Your task to perform on an android device: How much does a 3 bedroom apartment rent for in Washington DC? Image 0: 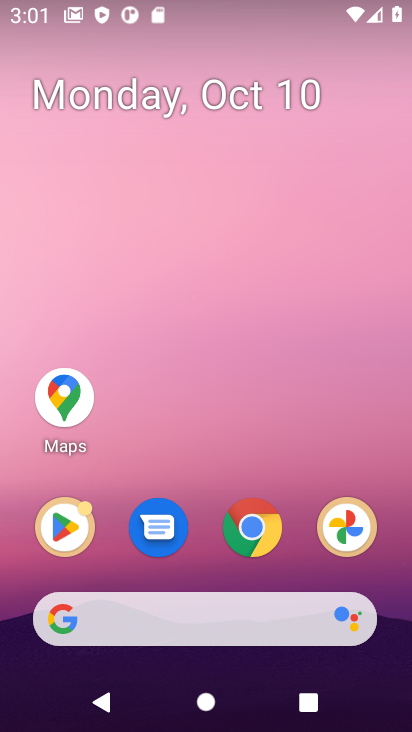
Step 0: press home button
Your task to perform on an android device: How much does a 3 bedroom apartment rent for in Washington DC? Image 1: 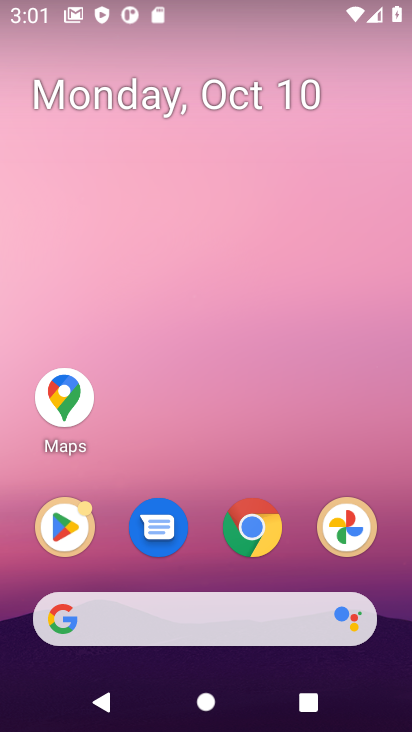
Step 1: click (267, 624)
Your task to perform on an android device: How much does a 3 bedroom apartment rent for in Washington DC? Image 2: 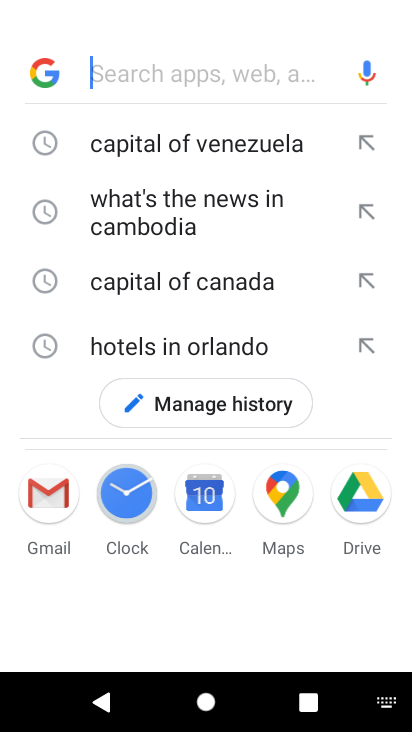
Step 2: type "3 bedroom apartment rent for in Washington DC?"
Your task to perform on an android device: How much does a 3 bedroom apartment rent for in Washington DC? Image 3: 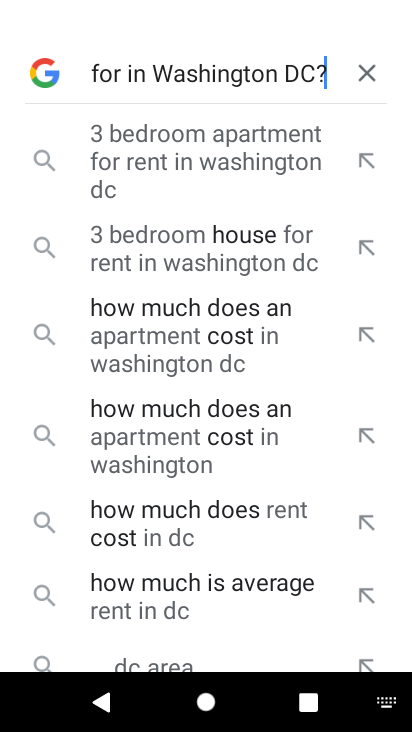
Step 3: press enter
Your task to perform on an android device: How much does a 3 bedroom apartment rent for in Washington DC? Image 4: 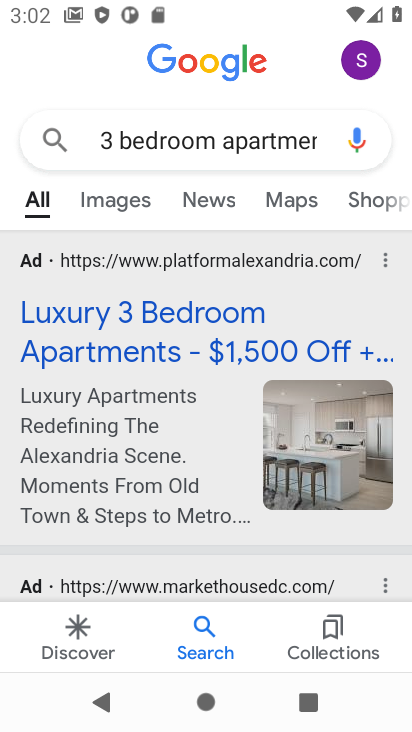
Step 4: drag from (164, 452) to (191, 308)
Your task to perform on an android device: How much does a 3 bedroom apartment rent for in Washington DC? Image 5: 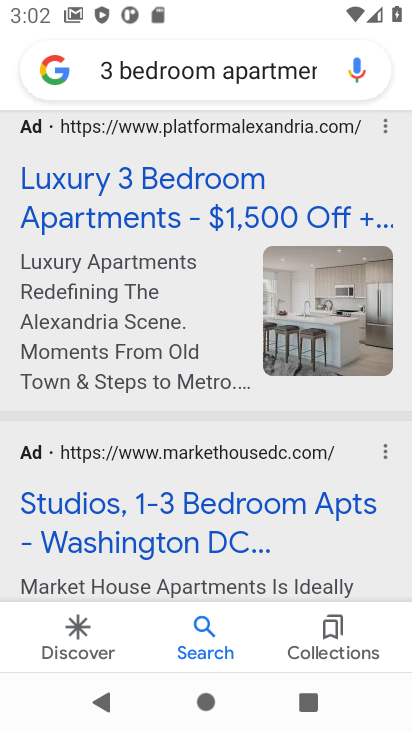
Step 5: click (214, 516)
Your task to perform on an android device: How much does a 3 bedroom apartment rent for in Washington DC? Image 6: 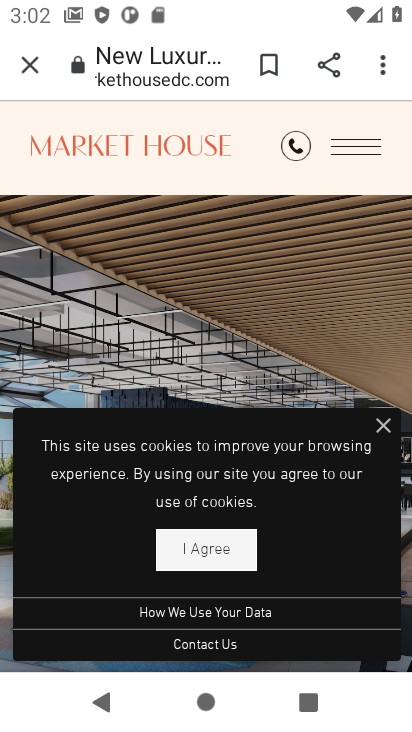
Step 6: click (216, 559)
Your task to perform on an android device: How much does a 3 bedroom apartment rent for in Washington DC? Image 7: 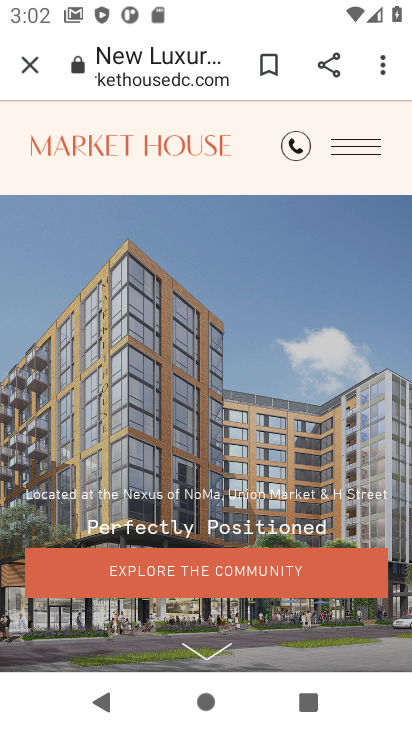
Step 7: task complete